Your task to perform on an android device: change the clock style Image 0: 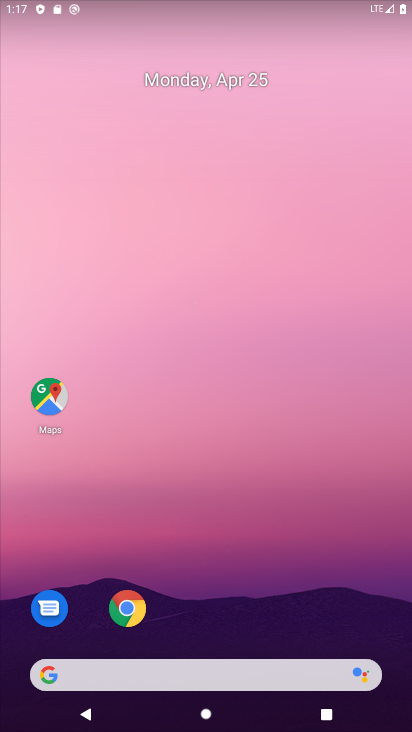
Step 0: drag from (232, 399) to (216, 12)
Your task to perform on an android device: change the clock style Image 1: 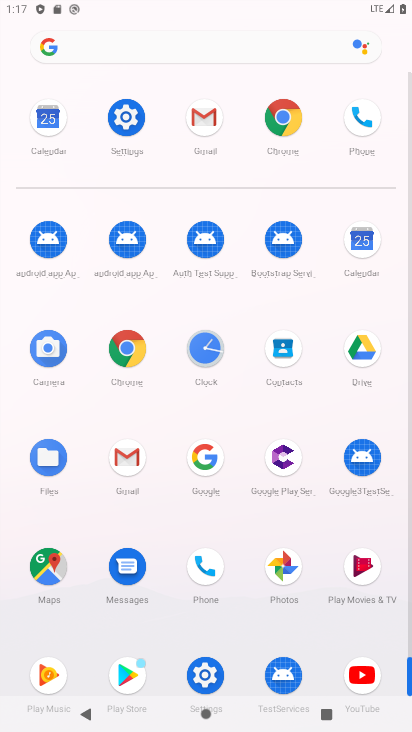
Step 1: drag from (201, 345) to (66, 164)
Your task to perform on an android device: change the clock style Image 2: 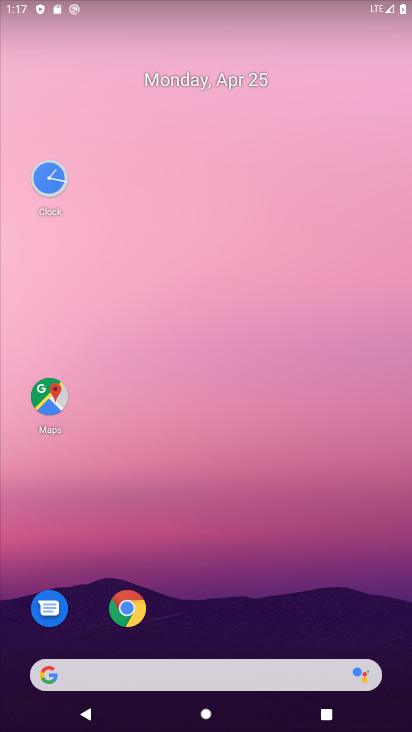
Step 2: click (39, 181)
Your task to perform on an android device: change the clock style Image 3: 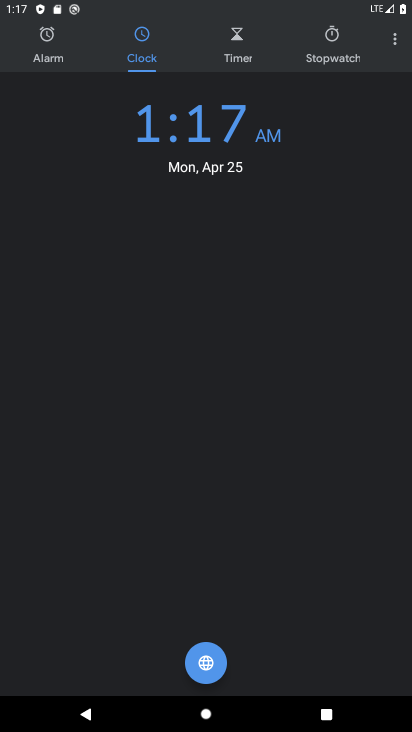
Step 3: click (398, 42)
Your task to perform on an android device: change the clock style Image 4: 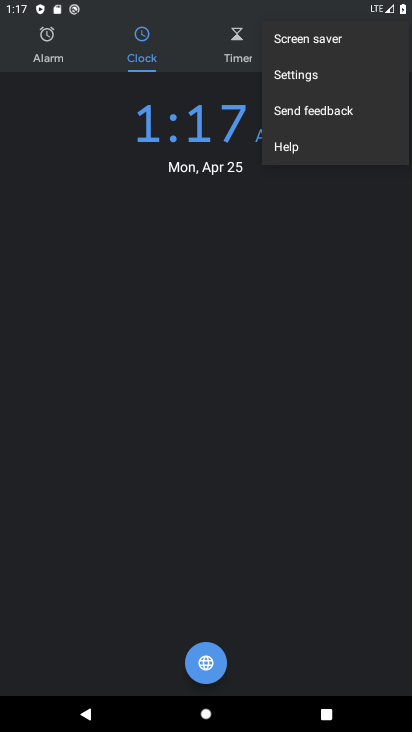
Step 4: click (338, 81)
Your task to perform on an android device: change the clock style Image 5: 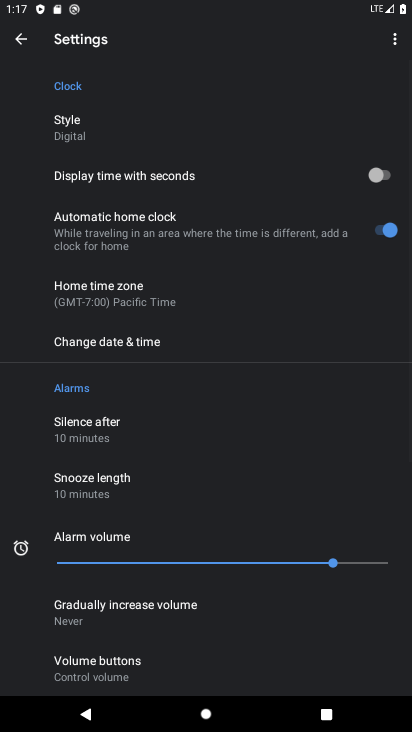
Step 5: click (108, 146)
Your task to perform on an android device: change the clock style Image 6: 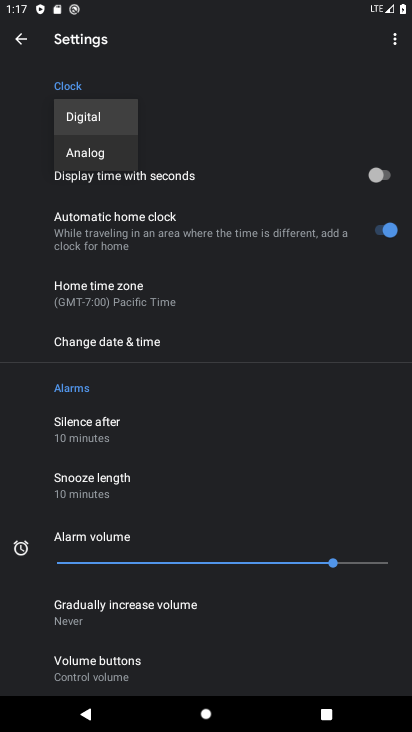
Step 6: click (112, 153)
Your task to perform on an android device: change the clock style Image 7: 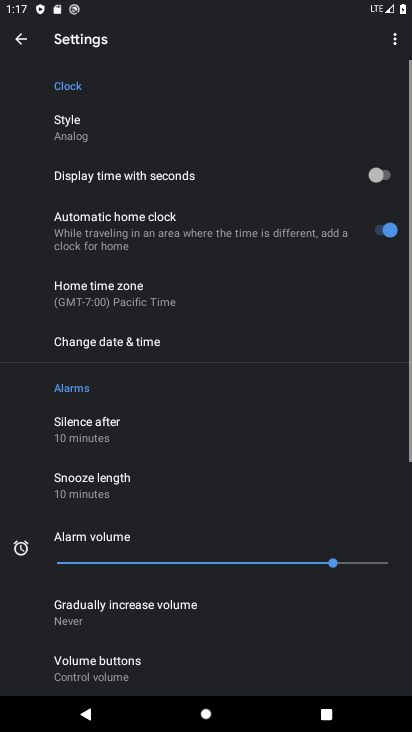
Step 7: task complete